Your task to perform on an android device: Open the calendar app, open the side menu, and click the "Day" option Image 0: 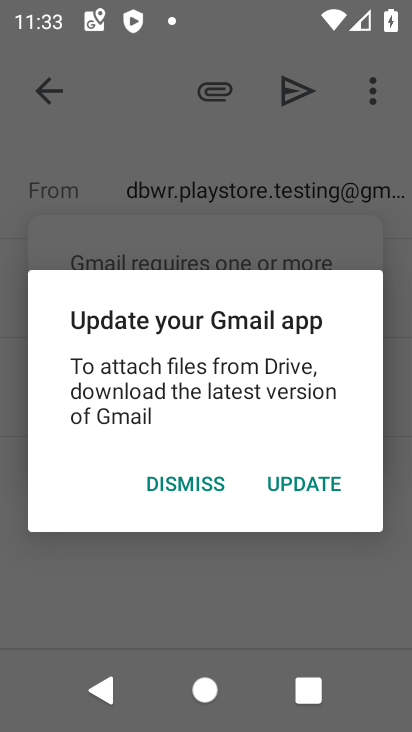
Step 0: click (297, 429)
Your task to perform on an android device: Open the calendar app, open the side menu, and click the "Day" option Image 1: 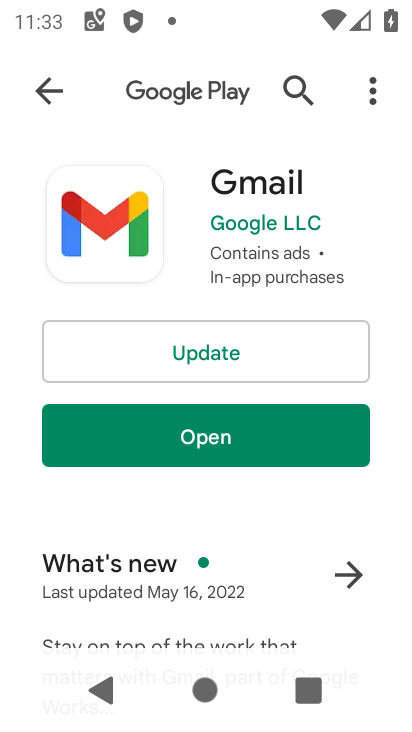
Step 1: press home button
Your task to perform on an android device: Open the calendar app, open the side menu, and click the "Day" option Image 2: 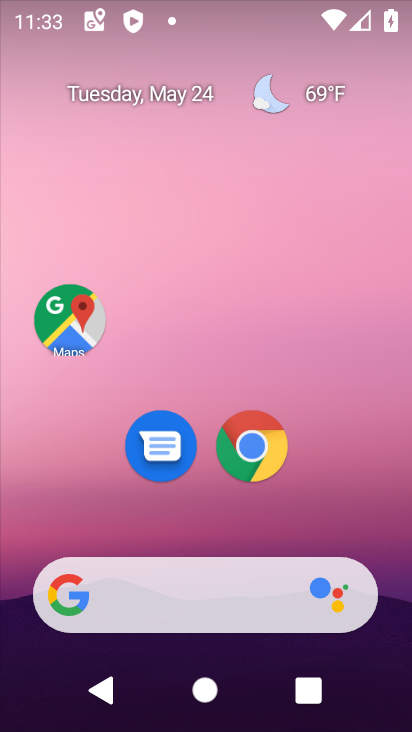
Step 2: drag from (165, 537) to (238, 154)
Your task to perform on an android device: Open the calendar app, open the side menu, and click the "Day" option Image 3: 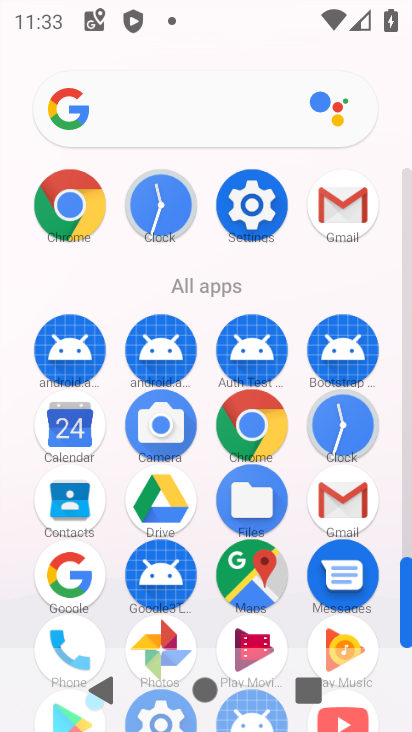
Step 3: click (60, 434)
Your task to perform on an android device: Open the calendar app, open the side menu, and click the "Day" option Image 4: 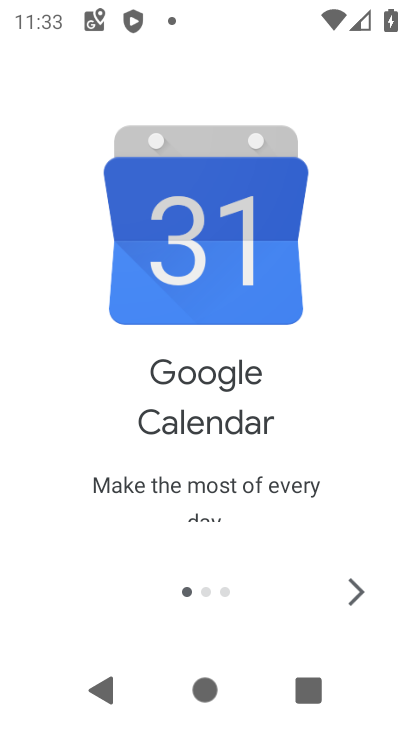
Step 4: click (346, 592)
Your task to perform on an android device: Open the calendar app, open the side menu, and click the "Day" option Image 5: 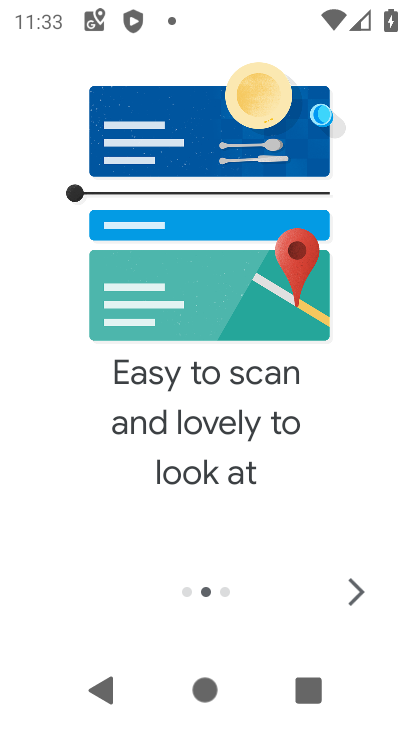
Step 5: click (346, 592)
Your task to perform on an android device: Open the calendar app, open the side menu, and click the "Day" option Image 6: 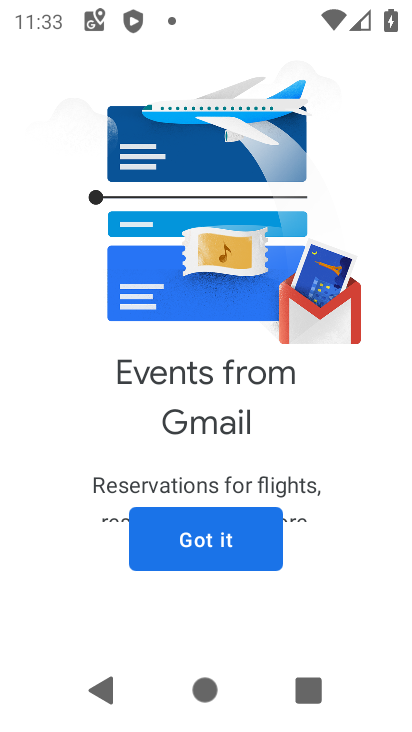
Step 6: click (182, 540)
Your task to perform on an android device: Open the calendar app, open the side menu, and click the "Day" option Image 7: 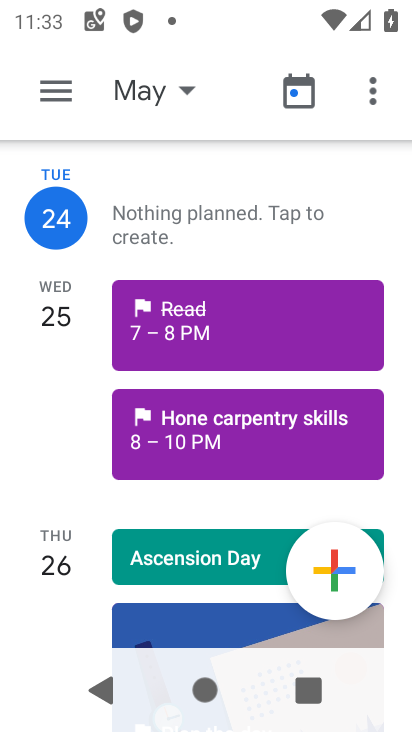
Step 7: click (65, 90)
Your task to perform on an android device: Open the calendar app, open the side menu, and click the "Day" option Image 8: 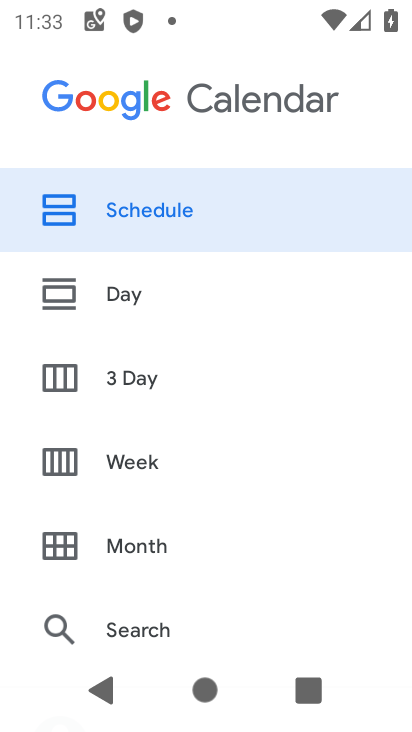
Step 8: click (115, 310)
Your task to perform on an android device: Open the calendar app, open the side menu, and click the "Day" option Image 9: 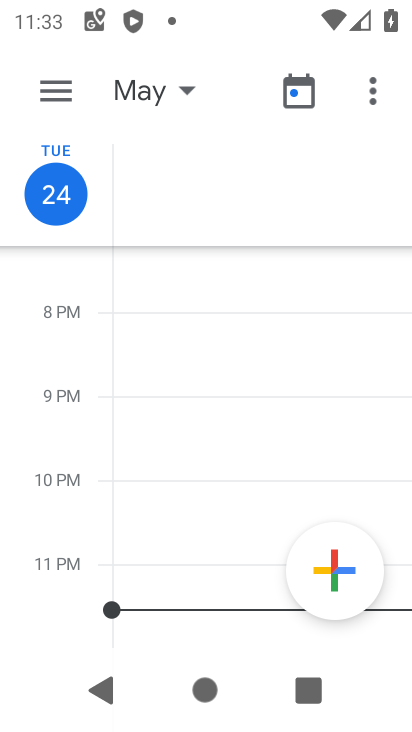
Step 9: task complete